Your task to perform on an android device: refresh tabs in the chrome app Image 0: 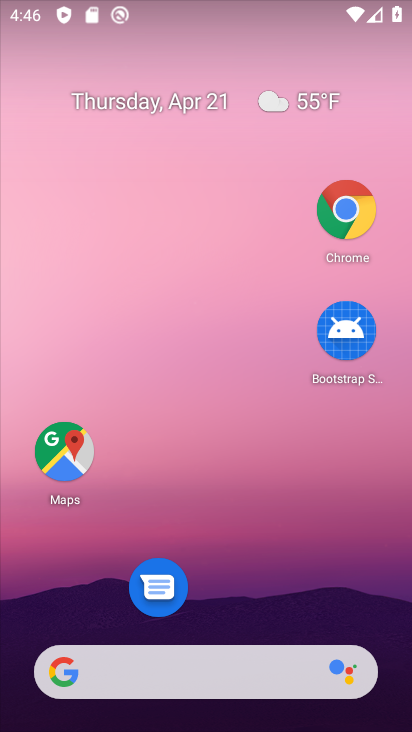
Step 0: drag from (316, 616) to (314, 90)
Your task to perform on an android device: refresh tabs in the chrome app Image 1: 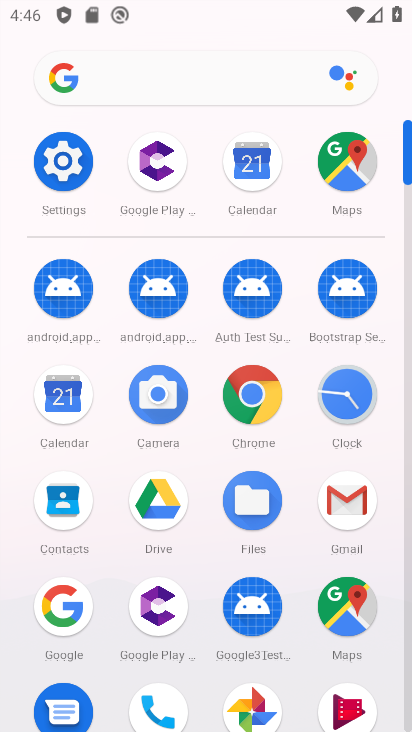
Step 1: click (255, 388)
Your task to perform on an android device: refresh tabs in the chrome app Image 2: 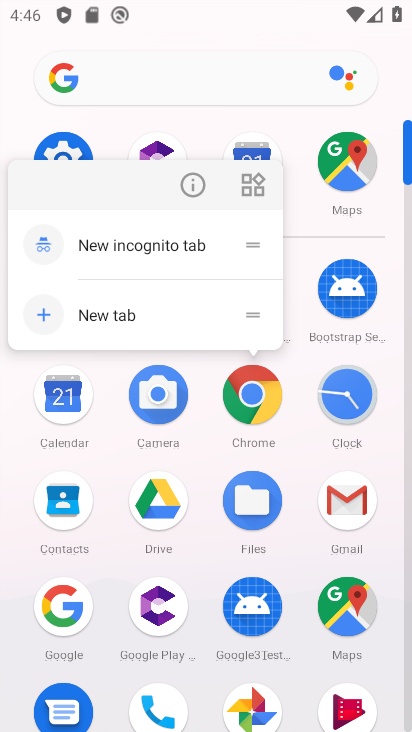
Step 2: click (266, 390)
Your task to perform on an android device: refresh tabs in the chrome app Image 3: 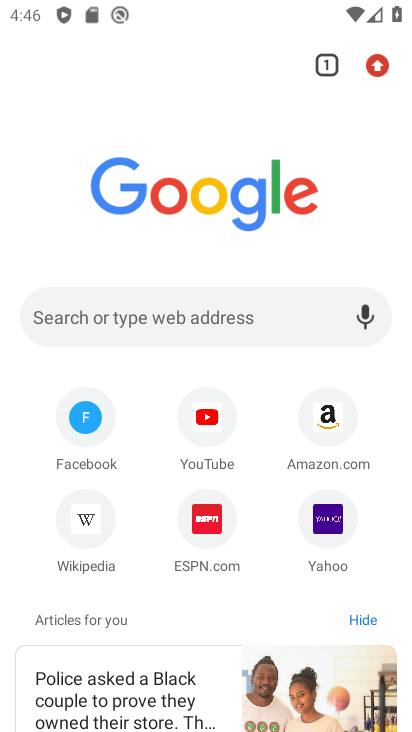
Step 3: click (378, 63)
Your task to perform on an android device: refresh tabs in the chrome app Image 4: 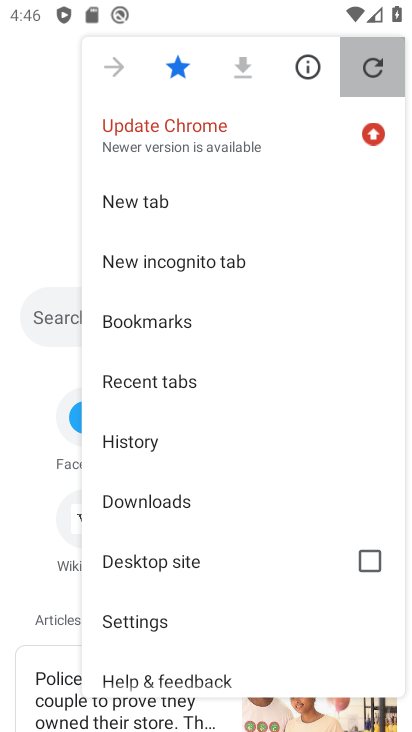
Step 4: click (375, 63)
Your task to perform on an android device: refresh tabs in the chrome app Image 5: 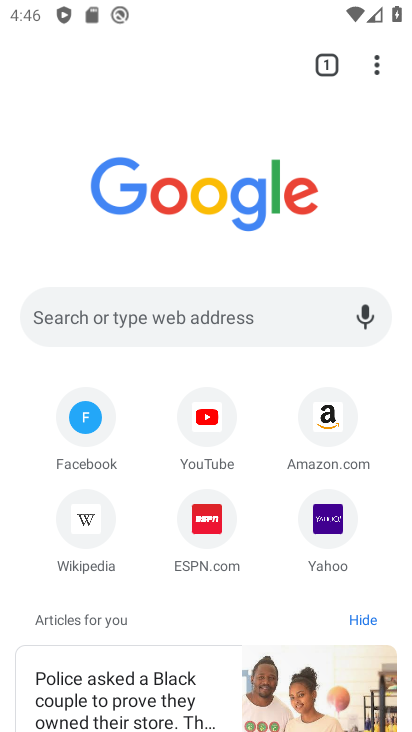
Step 5: task complete